Your task to perform on an android device: Go to Android settings Image 0: 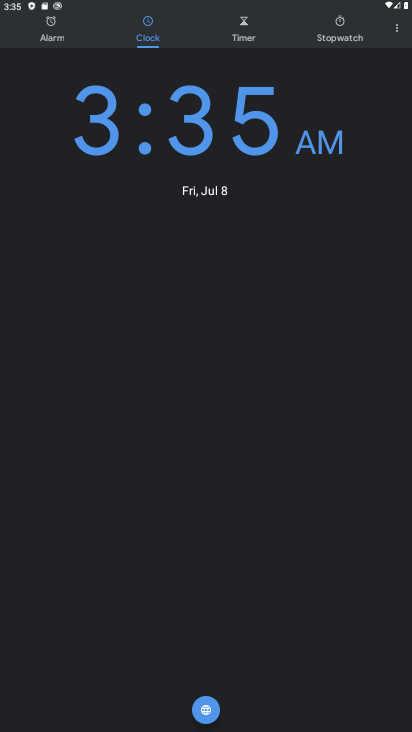
Step 0: press home button
Your task to perform on an android device: Go to Android settings Image 1: 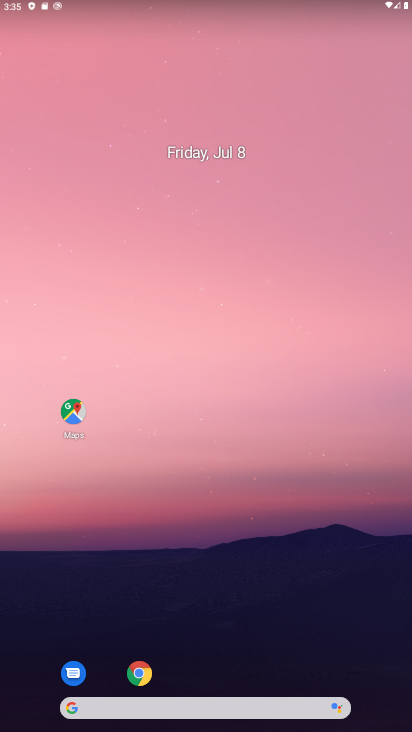
Step 1: drag from (275, 677) to (318, 74)
Your task to perform on an android device: Go to Android settings Image 2: 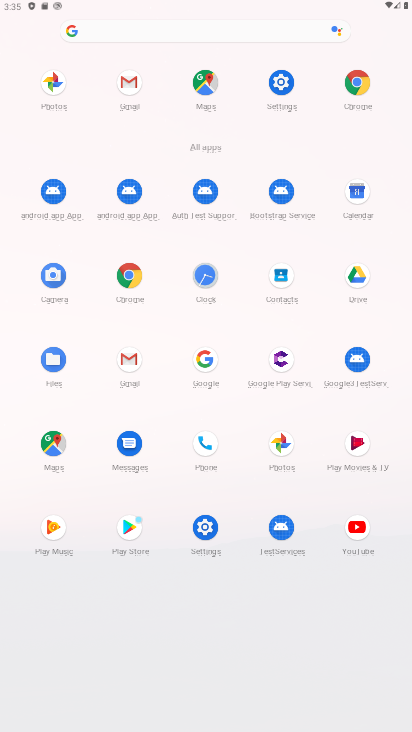
Step 2: click (282, 85)
Your task to perform on an android device: Go to Android settings Image 3: 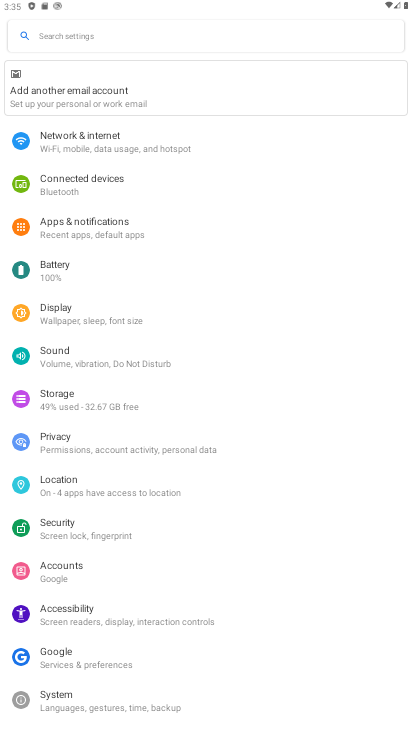
Step 3: task complete